Your task to perform on an android device: turn off translation in the chrome app Image 0: 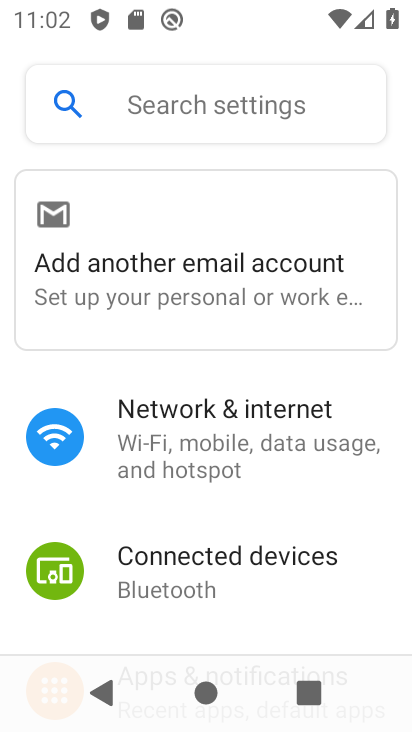
Step 0: press home button
Your task to perform on an android device: turn off translation in the chrome app Image 1: 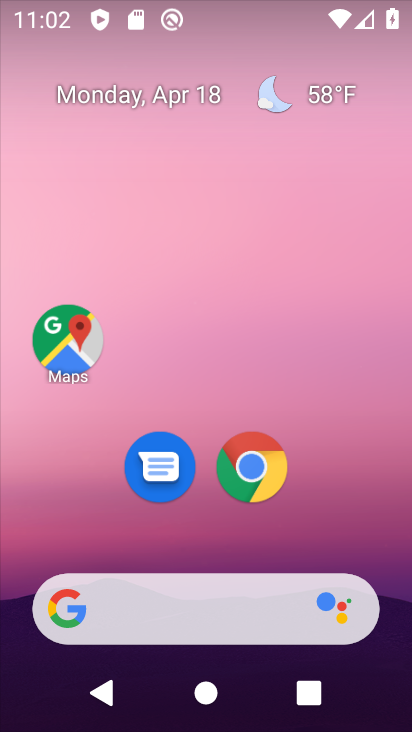
Step 1: click (259, 465)
Your task to perform on an android device: turn off translation in the chrome app Image 2: 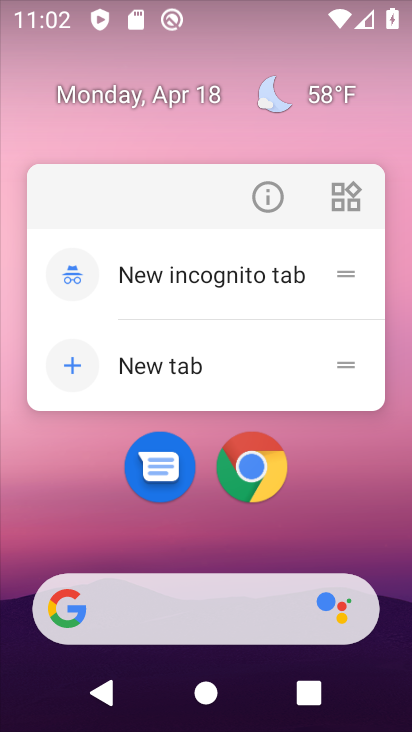
Step 2: click (254, 469)
Your task to perform on an android device: turn off translation in the chrome app Image 3: 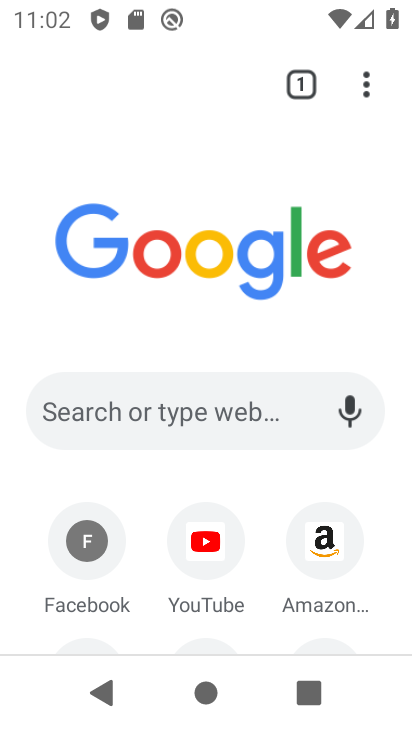
Step 3: click (358, 89)
Your task to perform on an android device: turn off translation in the chrome app Image 4: 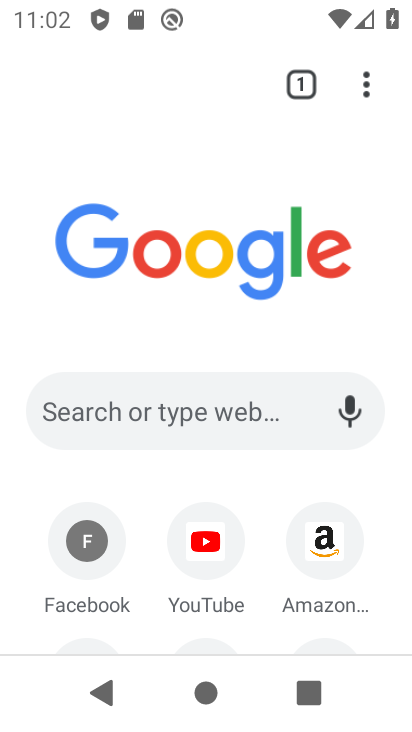
Step 4: click (365, 89)
Your task to perform on an android device: turn off translation in the chrome app Image 5: 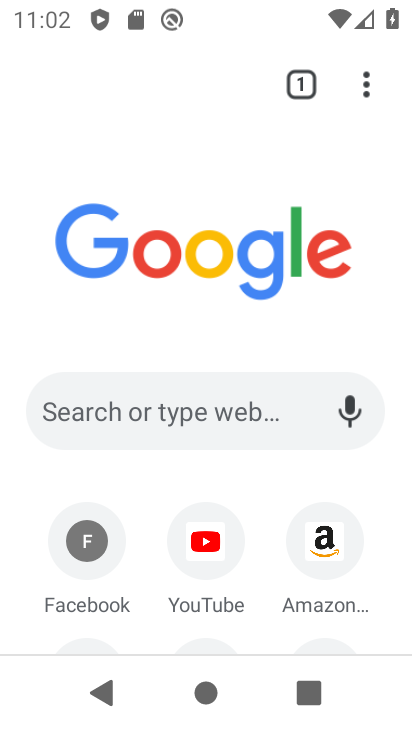
Step 5: click (362, 75)
Your task to perform on an android device: turn off translation in the chrome app Image 6: 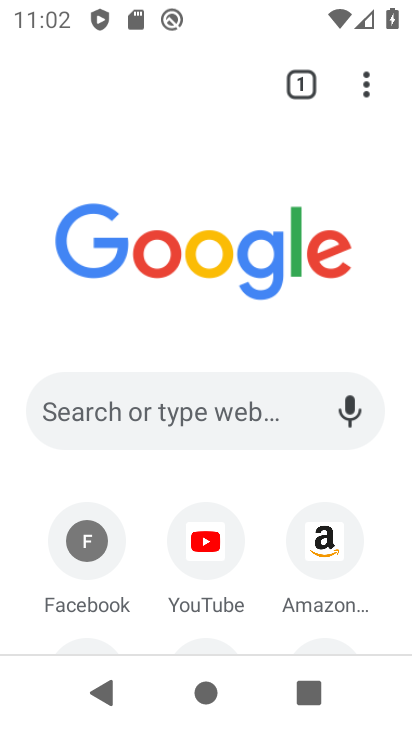
Step 6: click (363, 79)
Your task to perform on an android device: turn off translation in the chrome app Image 7: 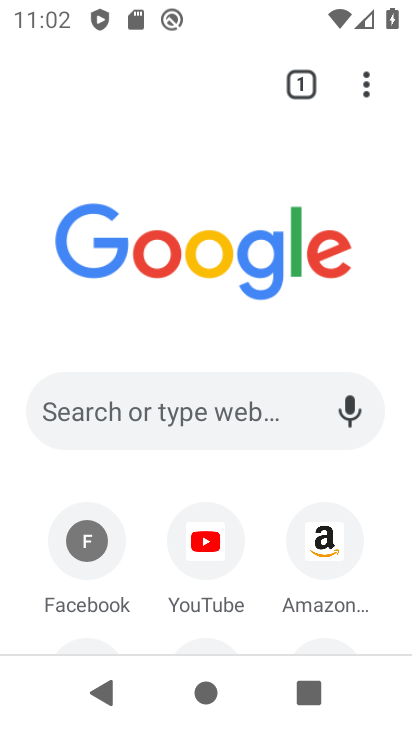
Step 7: click (368, 83)
Your task to perform on an android device: turn off translation in the chrome app Image 8: 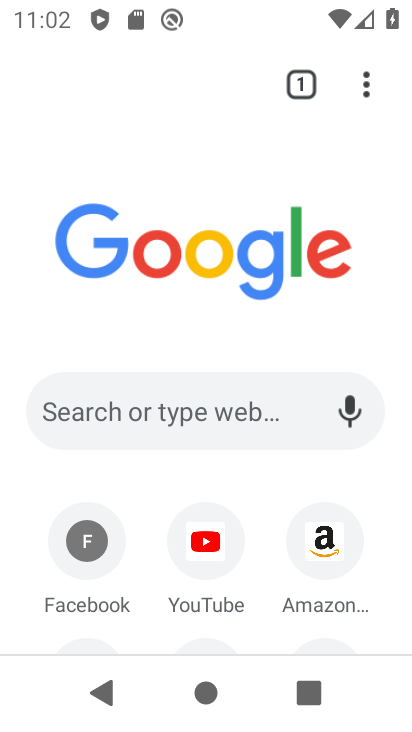
Step 8: click (368, 83)
Your task to perform on an android device: turn off translation in the chrome app Image 9: 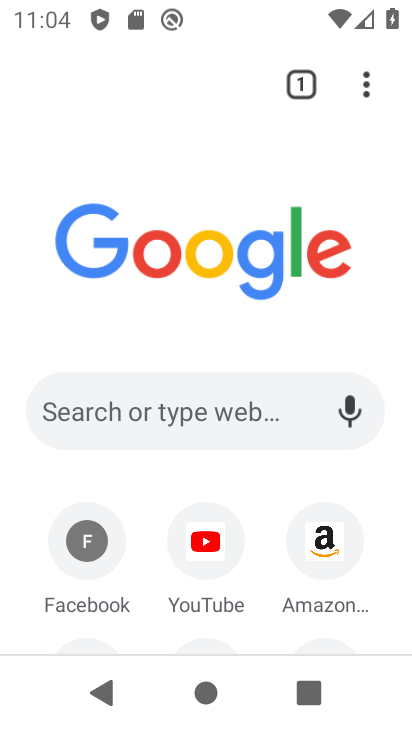
Step 9: click (368, 86)
Your task to perform on an android device: turn off translation in the chrome app Image 10: 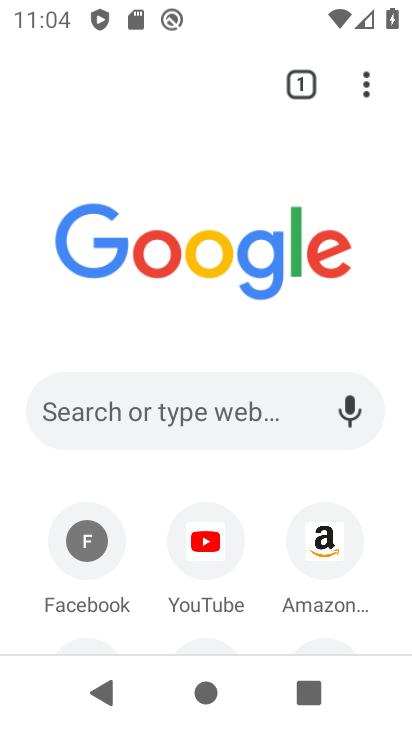
Step 10: click (368, 86)
Your task to perform on an android device: turn off translation in the chrome app Image 11: 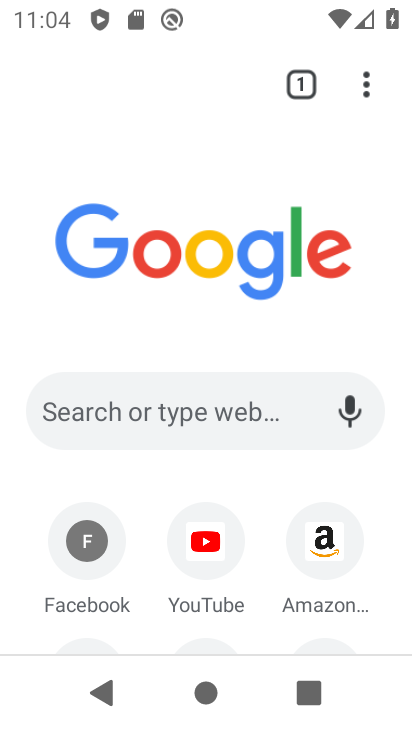
Step 11: click (368, 86)
Your task to perform on an android device: turn off translation in the chrome app Image 12: 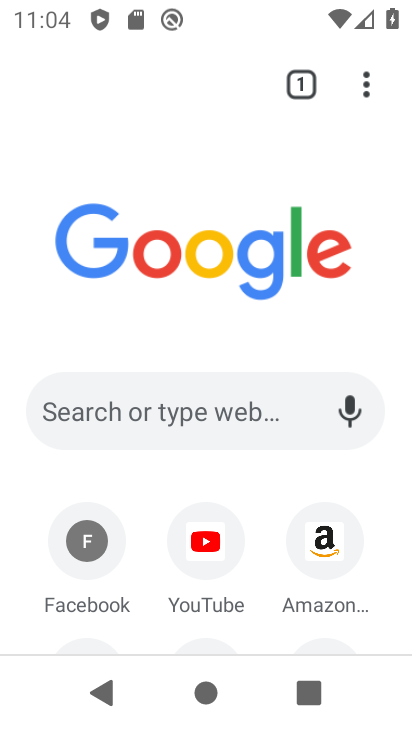
Step 12: click (368, 86)
Your task to perform on an android device: turn off translation in the chrome app Image 13: 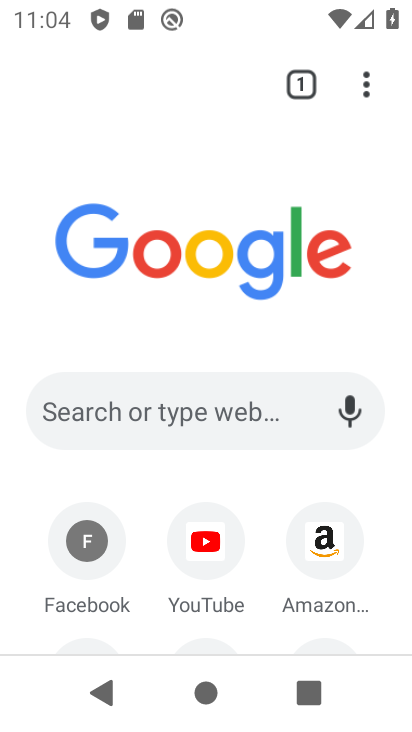
Step 13: click (368, 86)
Your task to perform on an android device: turn off translation in the chrome app Image 14: 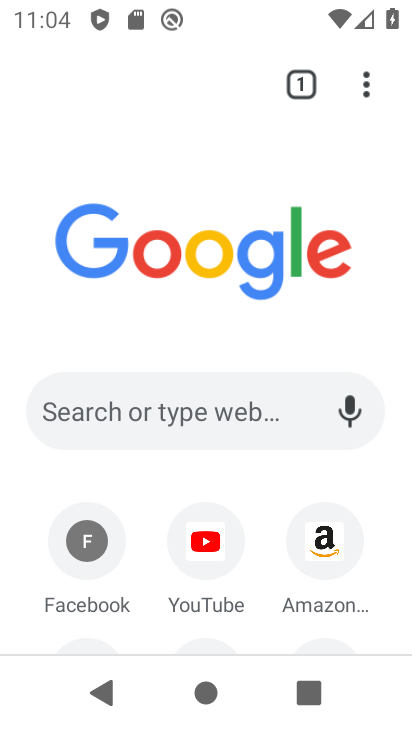
Step 14: click (368, 86)
Your task to perform on an android device: turn off translation in the chrome app Image 15: 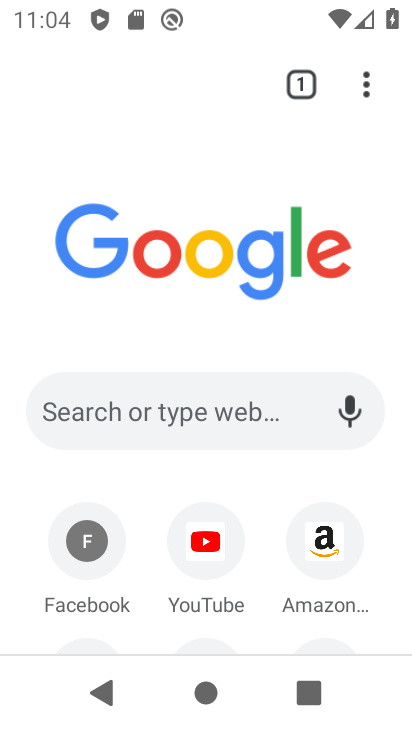
Step 15: click (368, 86)
Your task to perform on an android device: turn off translation in the chrome app Image 16: 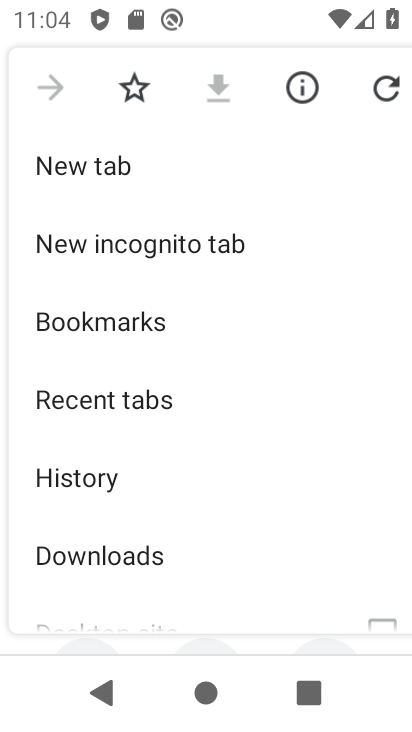
Step 16: click (368, 86)
Your task to perform on an android device: turn off translation in the chrome app Image 17: 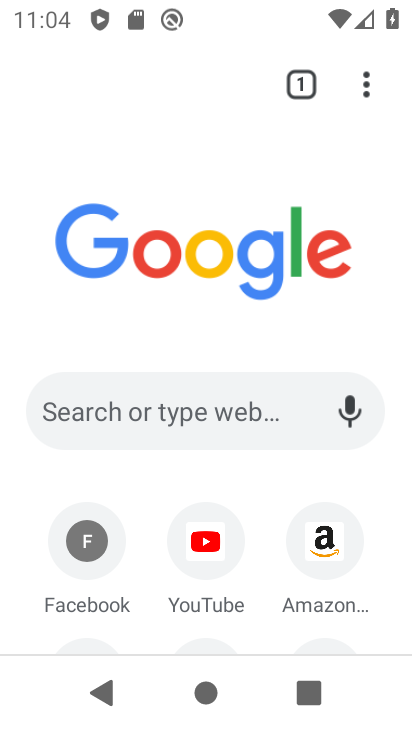
Step 17: click (368, 86)
Your task to perform on an android device: turn off translation in the chrome app Image 18: 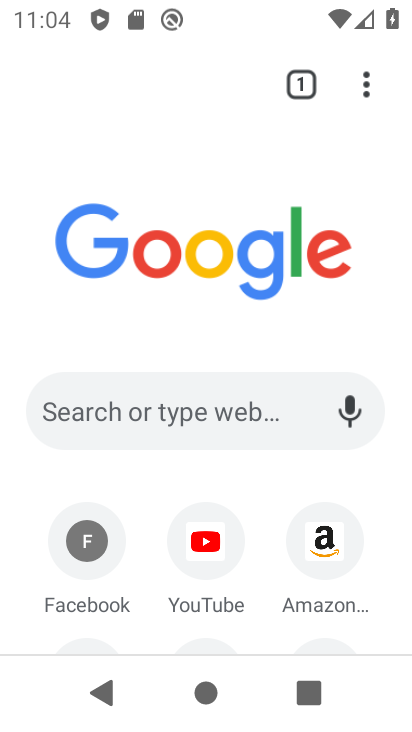
Step 18: click (368, 86)
Your task to perform on an android device: turn off translation in the chrome app Image 19: 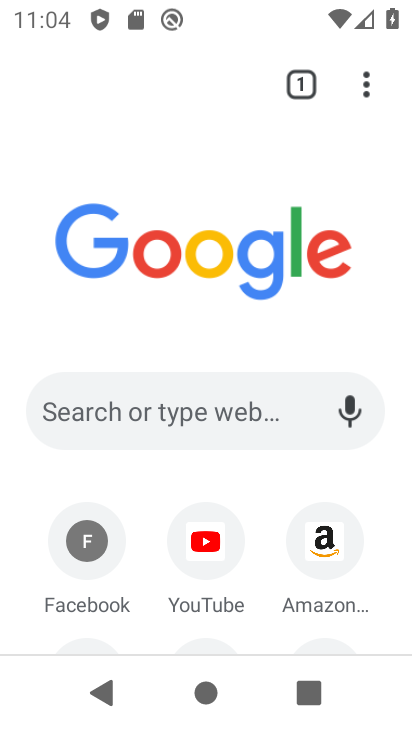
Step 19: click (368, 86)
Your task to perform on an android device: turn off translation in the chrome app Image 20: 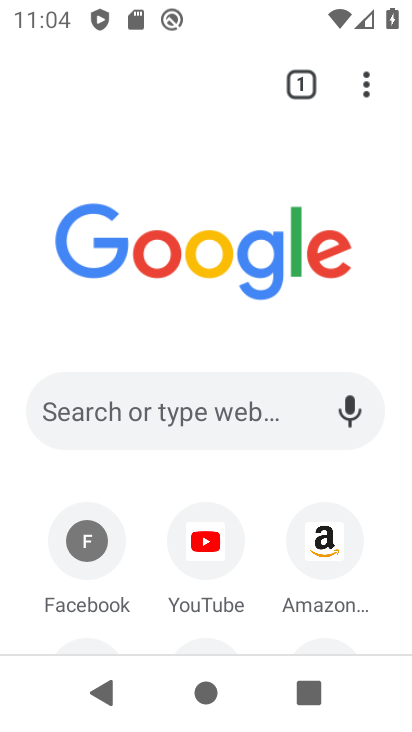
Step 20: click (357, 94)
Your task to perform on an android device: turn off translation in the chrome app Image 21: 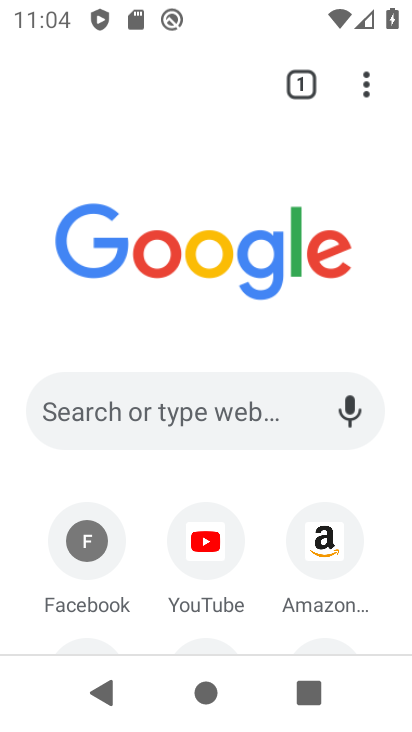
Step 21: click (361, 84)
Your task to perform on an android device: turn off translation in the chrome app Image 22: 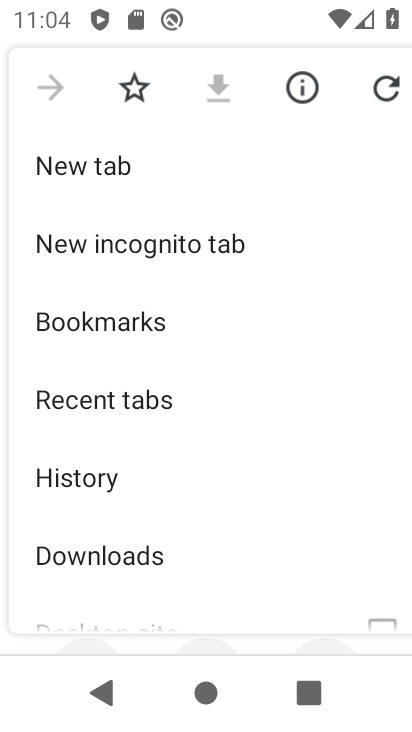
Step 22: drag from (187, 528) to (222, 136)
Your task to perform on an android device: turn off translation in the chrome app Image 23: 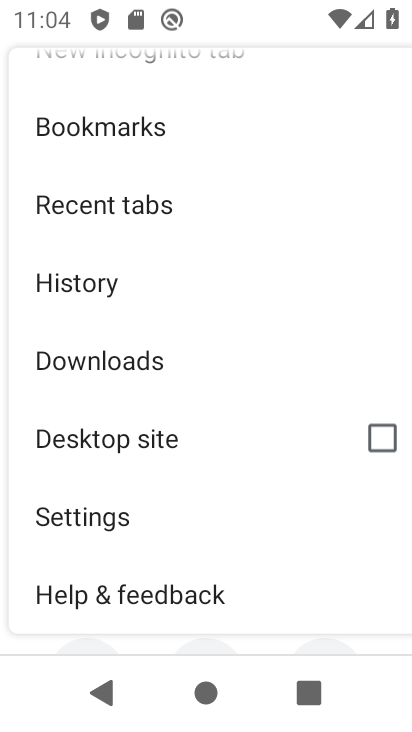
Step 23: click (198, 519)
Your task to perform on an android device: turn off translation in the chrome app Image 24: 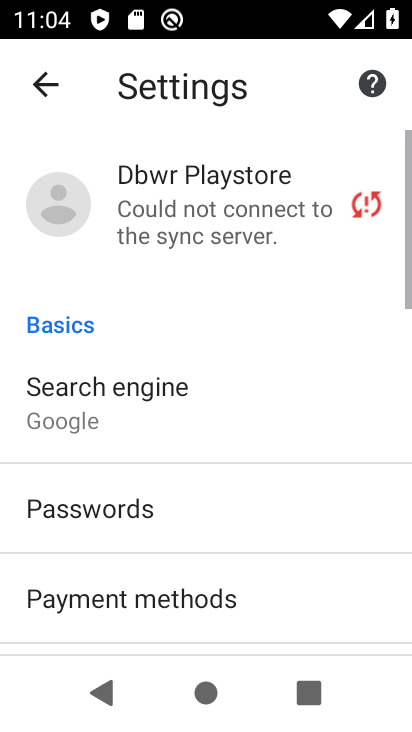
Step 24: drag from (212, 515) to (189, 131)
Your task to perform on an android device: turn off translation in the chrome app Image 25: 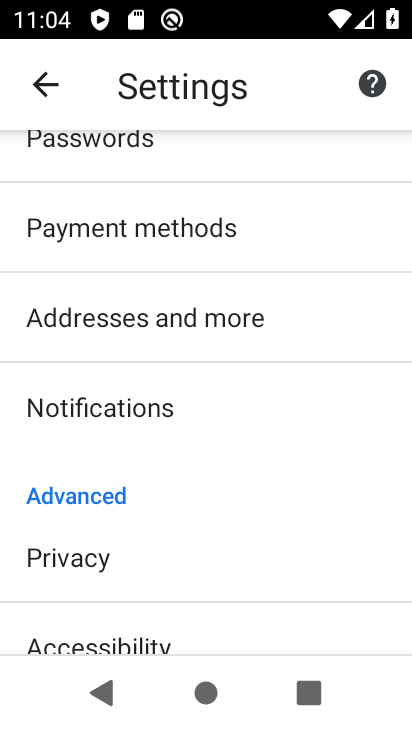
Step 25: drag from (208, 550) to (194, 174)
Your task to perform on an android device: turn off translation in the chrome app Image 26: 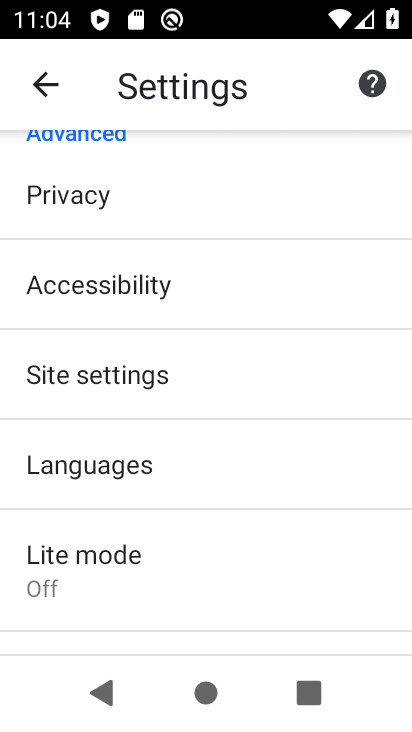
Step 26: click (174, 471)
Your task to perform on an android device: turn off translation in the chrome app Image 27: 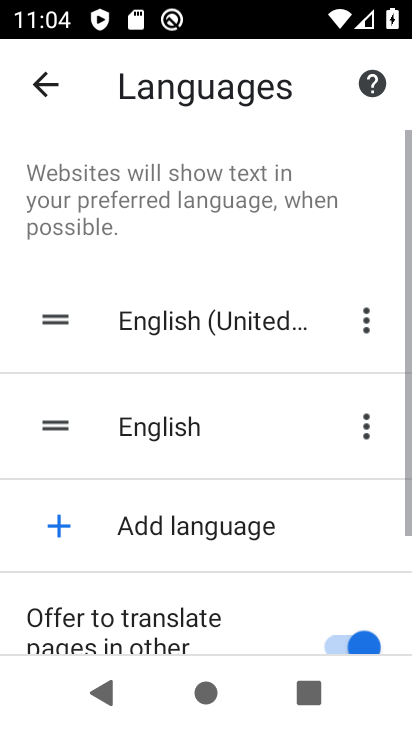
Step 27: click (352, 646)
Your task to perform on an android device: turn off translation in the chrome app Image 28: 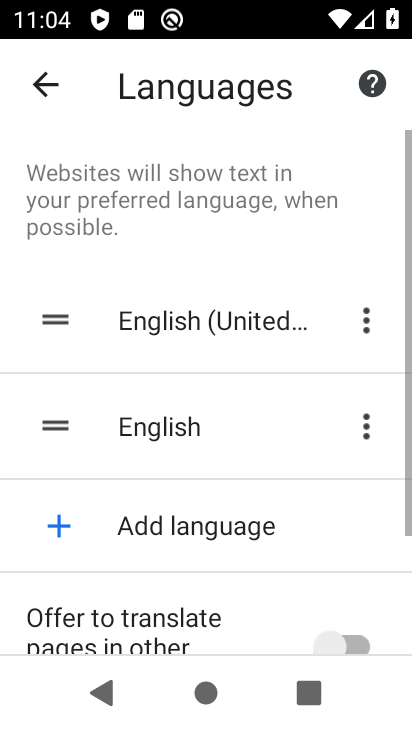
Step 28: task complete